Your task to perform on an android device: Open Google Chrome and click the shortcut for Amazon.com Image 0: 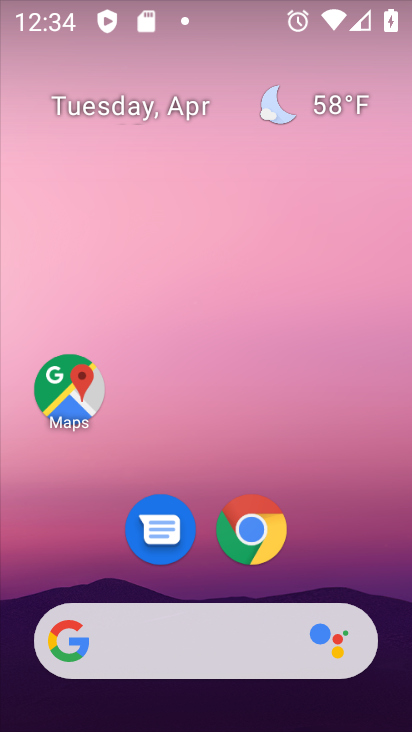
Step 0: drag from (396, 628) to (225, 6)
Your task to perform on an android device: Open Google Chrome and click the shortcut for Amazon.com Image 1: 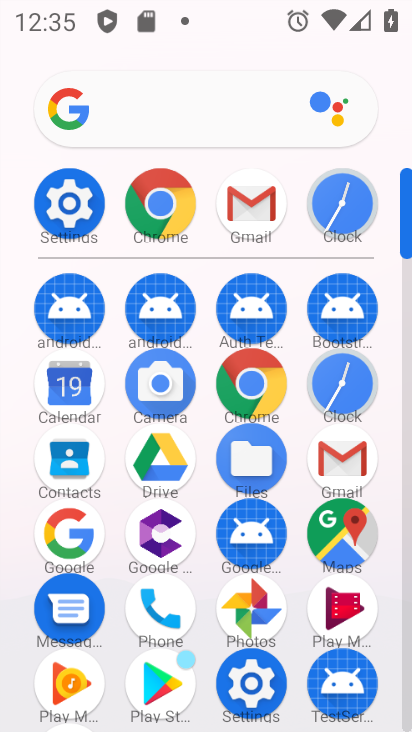
Step 1: click (257, 392)
Your task to perform on an android device: Open Google Chrome and click the shortcut for Amazon.com Image 2: 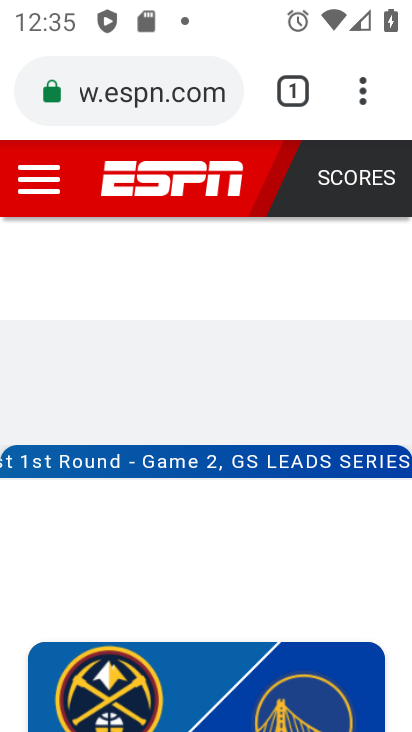
Step 2: press back button
Your task to perform on an android device: Open Google Chrome and click the shortcut for Amazon.com Image 3: 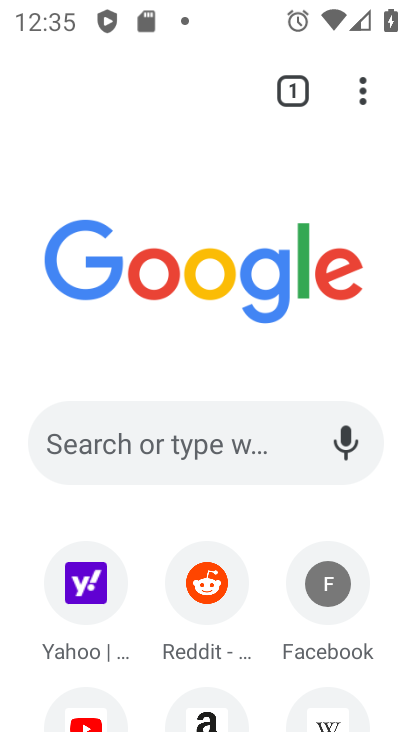
Step 3: click (198, 705)
Your task to perform on an android device: Open Google Chrome and click the shortcut for Amazon.com Image 4: 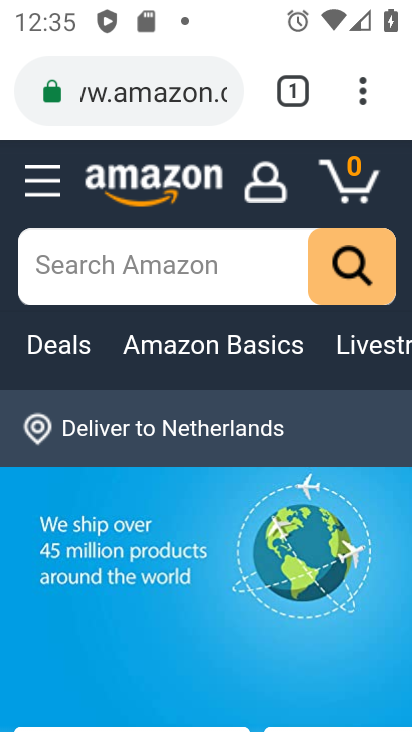
Step 4: task complete